Your task to perform on an android device: create a new album in the google photos Image 0: 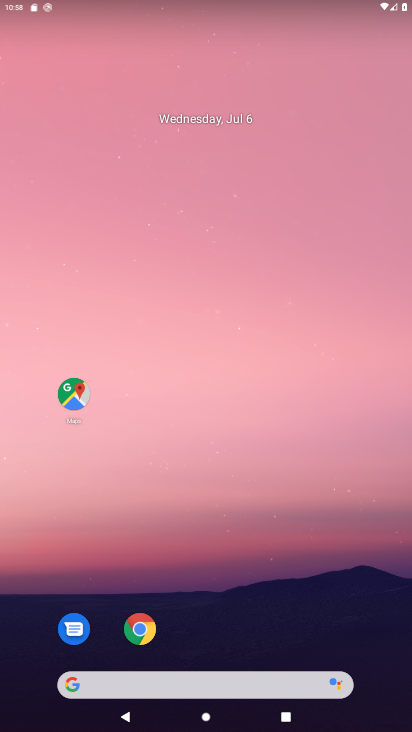
Step 0: press home button
Your task to perform on an android device: create a new album in the google photos Image 1: 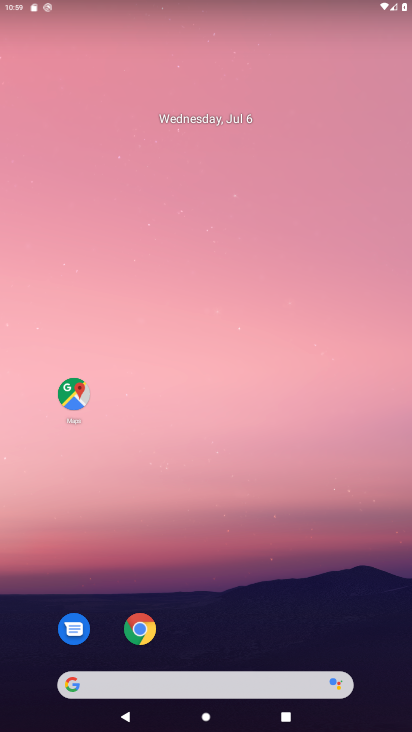
Step 1: drag from (209, 644) to (227, 85)
Your task to perform on an android device: create a new album in the google photos Image 2: 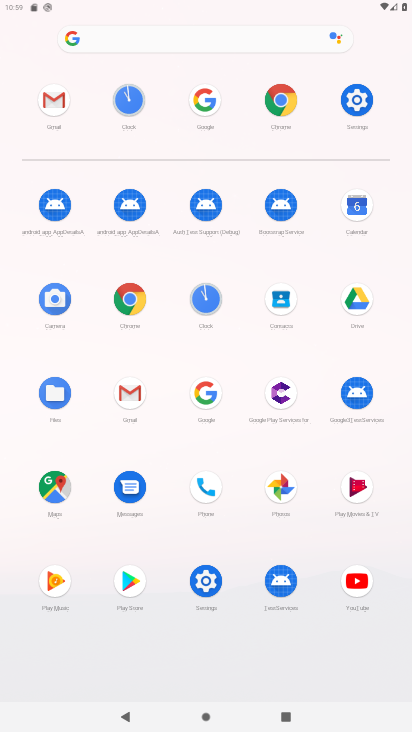
Step 2: click (280, 483)
Your task to perform on an android device: create a new album in the google photos Image 3: 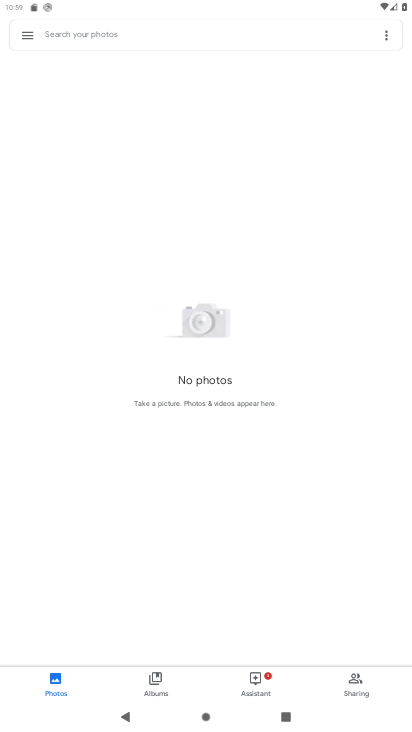
Step 3: click (383, 36)
Your task to perform on an android device: create a new album in the google photos Image 4: 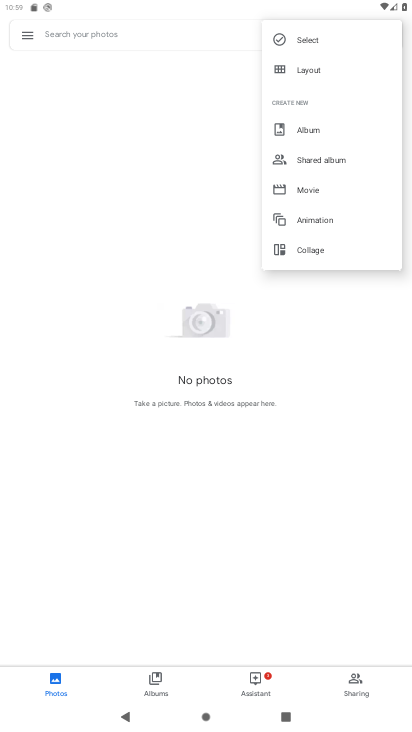
Step 4: click (305, 129)
Your task to perform on an android device: create a new album in the google photos Image 5: 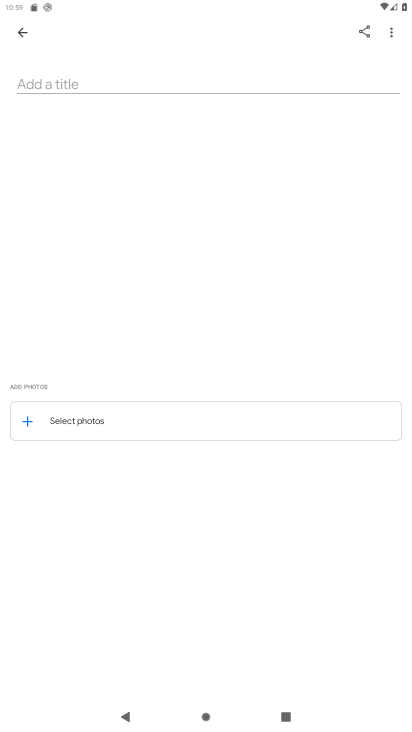
Step 5: click (24, 421)
Your task to perform on an android device: create a new album in the google photos Image 6: 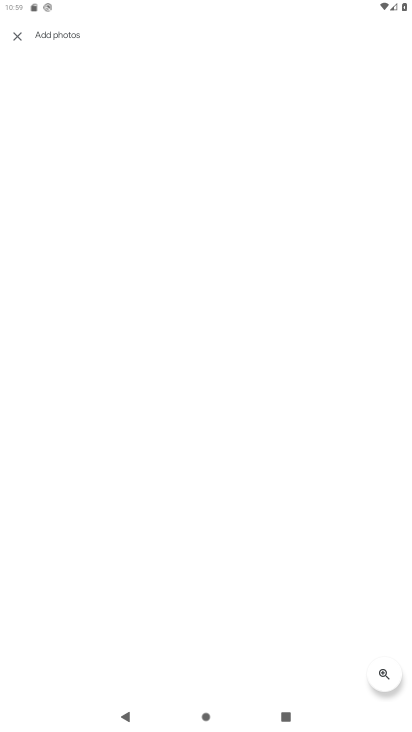
Step 6: task complete